Your task to perform on an android device: Go to wifi settings Image 0: 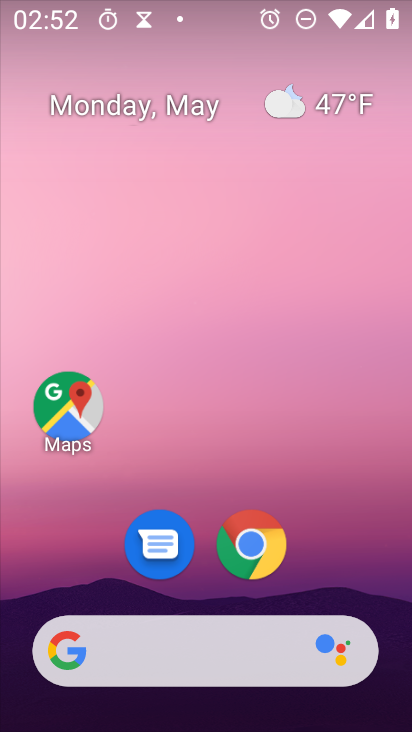
Step 0: drag from (343, 615) to (330, 4)
Your task to perform on an android device: Go to wifi settings Image 1: 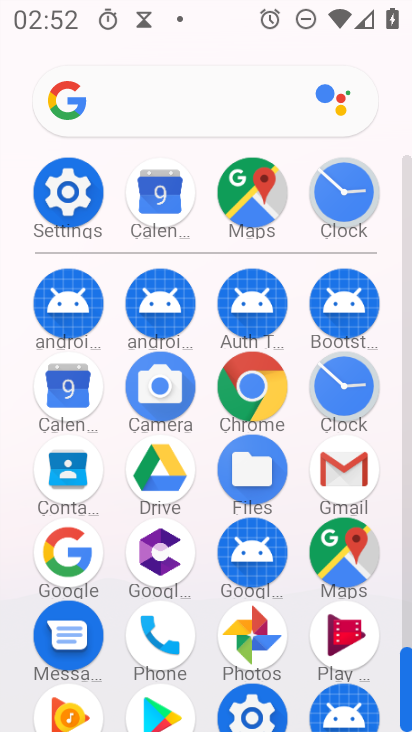
Step 1: click (69, 196)
Your task to perform on an android device: Go to wifi settings Image 2: 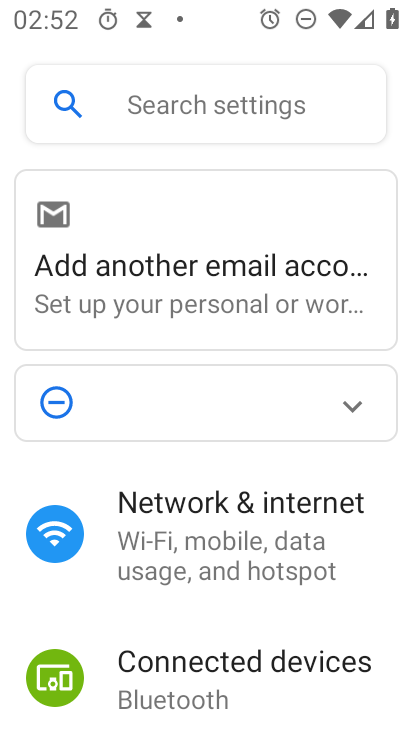
Step 2: click (314, 548)
Your task to perform on an android device: Go to wifi settings Image 3: 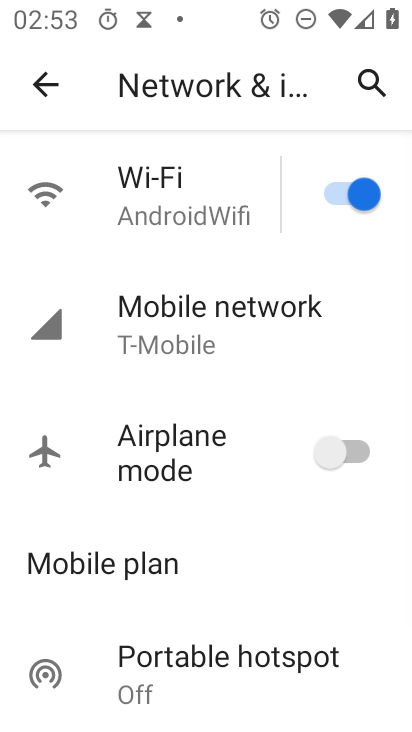
Step 3: click (180, 217)
Your task to perform on an android device: Go to wifi settings Image 4: 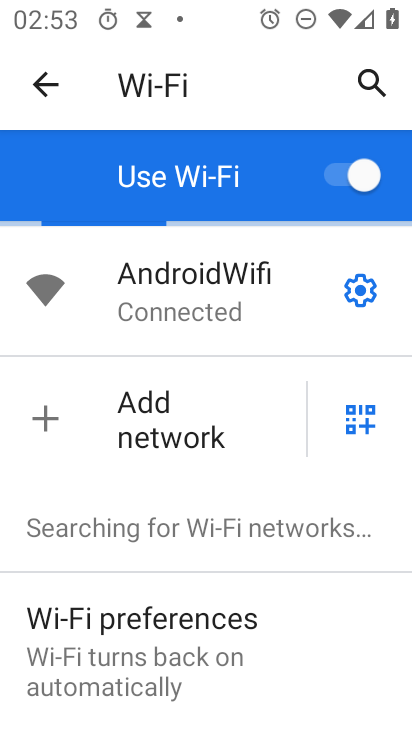
Step 4: task complete